Your task to perform on an android device: find which apps use the phone's location Image 0: 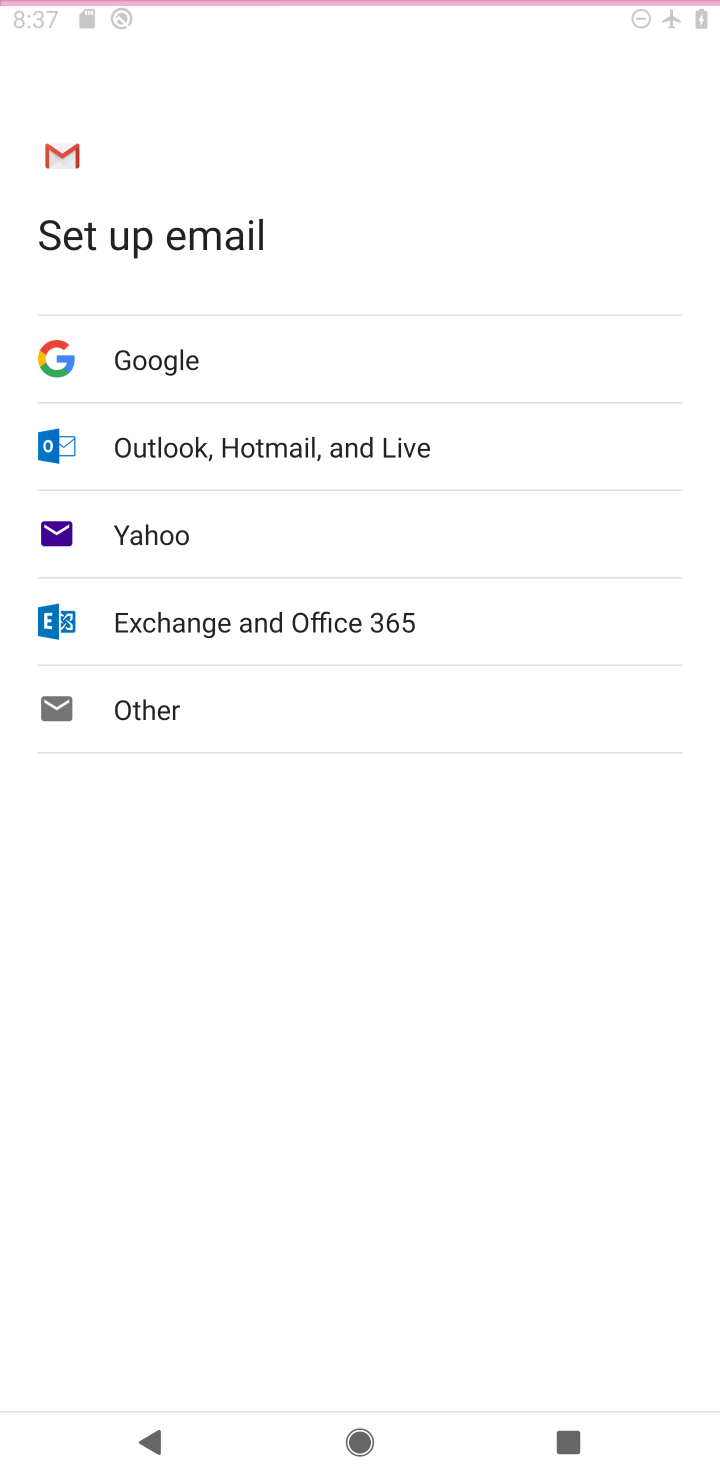
Step 0: press home button
Your task to perform on an android device: find which apps use the phone's location Image 1: 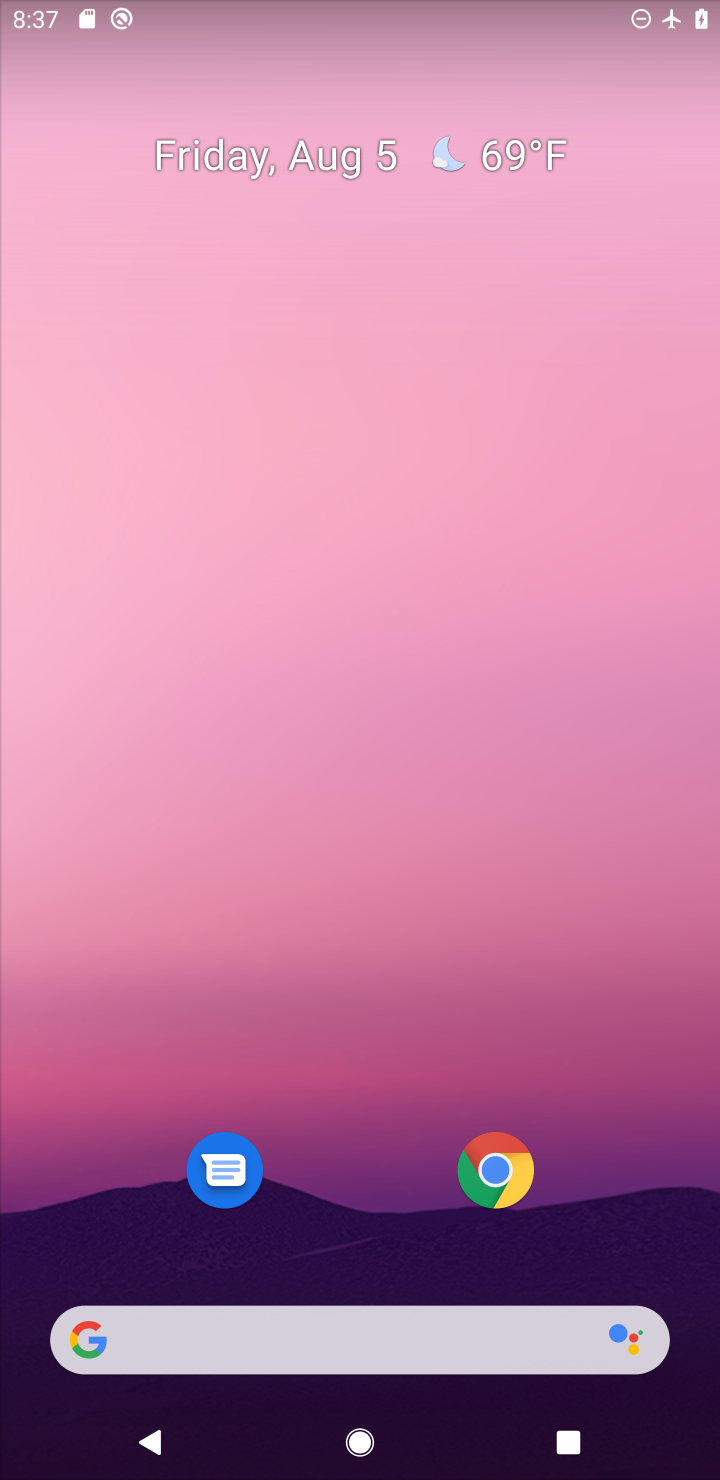
Step 1: drag from (629, 1213) to (601, 333)
Your task to perform on an android device: find which apps use the phone's location Image 2: 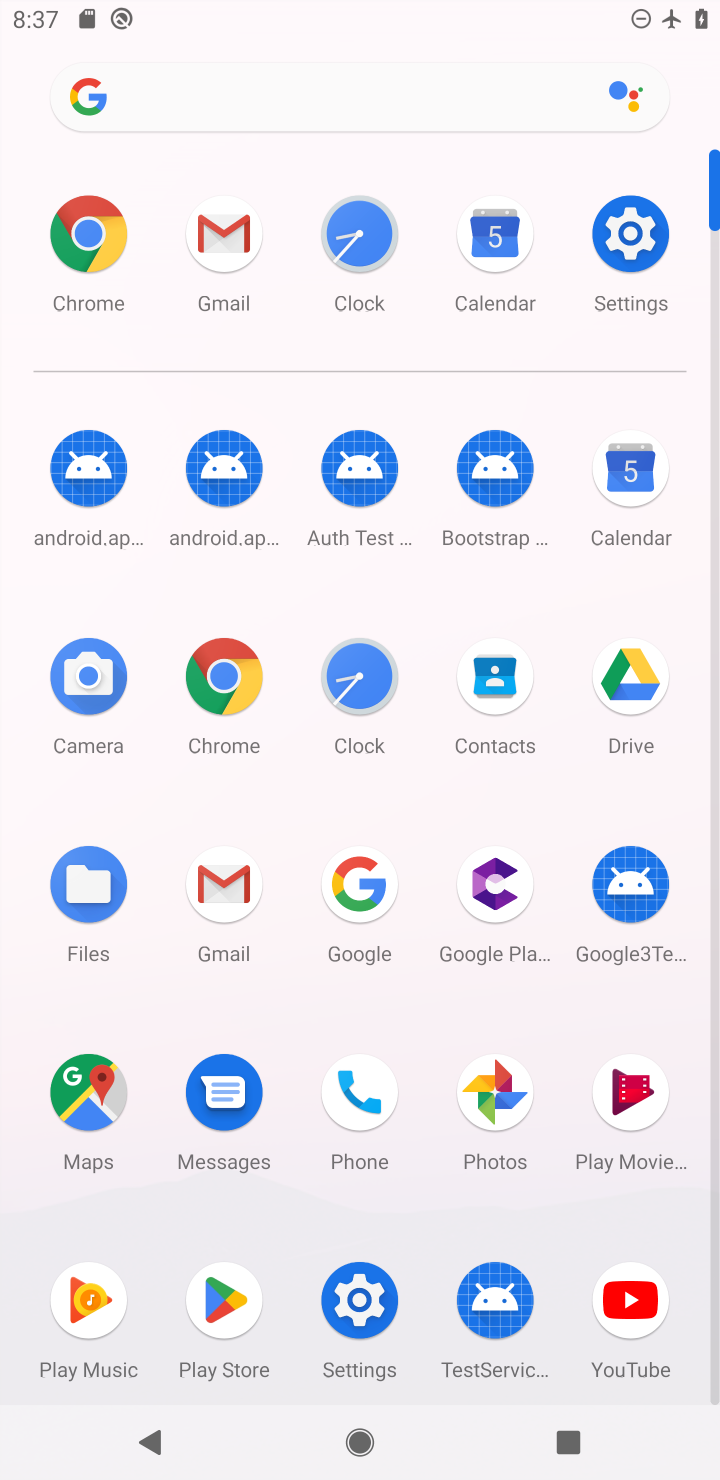
Step 2: click (356, 1293)
Your task to perform on an android device: find which apps use the phone's location Image 3: 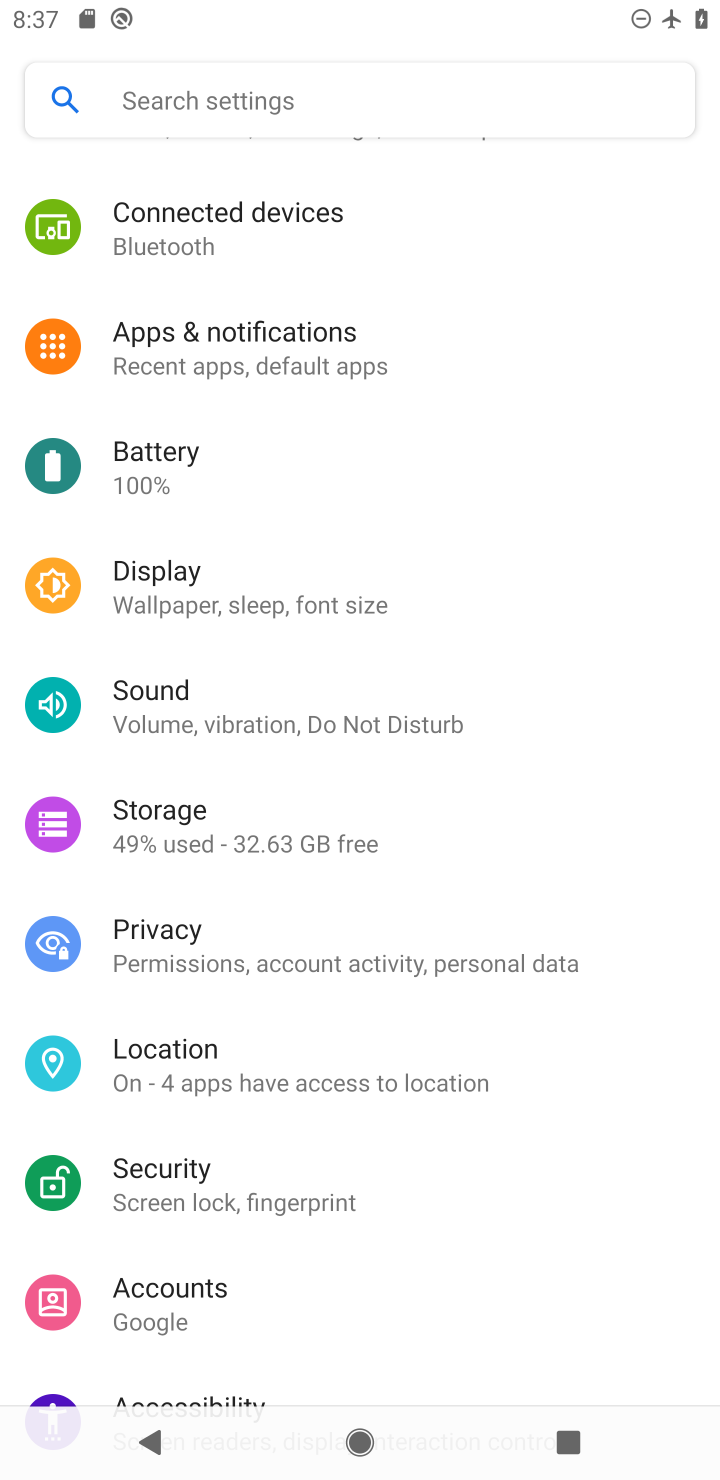
Step 3: click (185, 1075)
Your task to perform on an android device: find which apps use the phone's location Image 4: 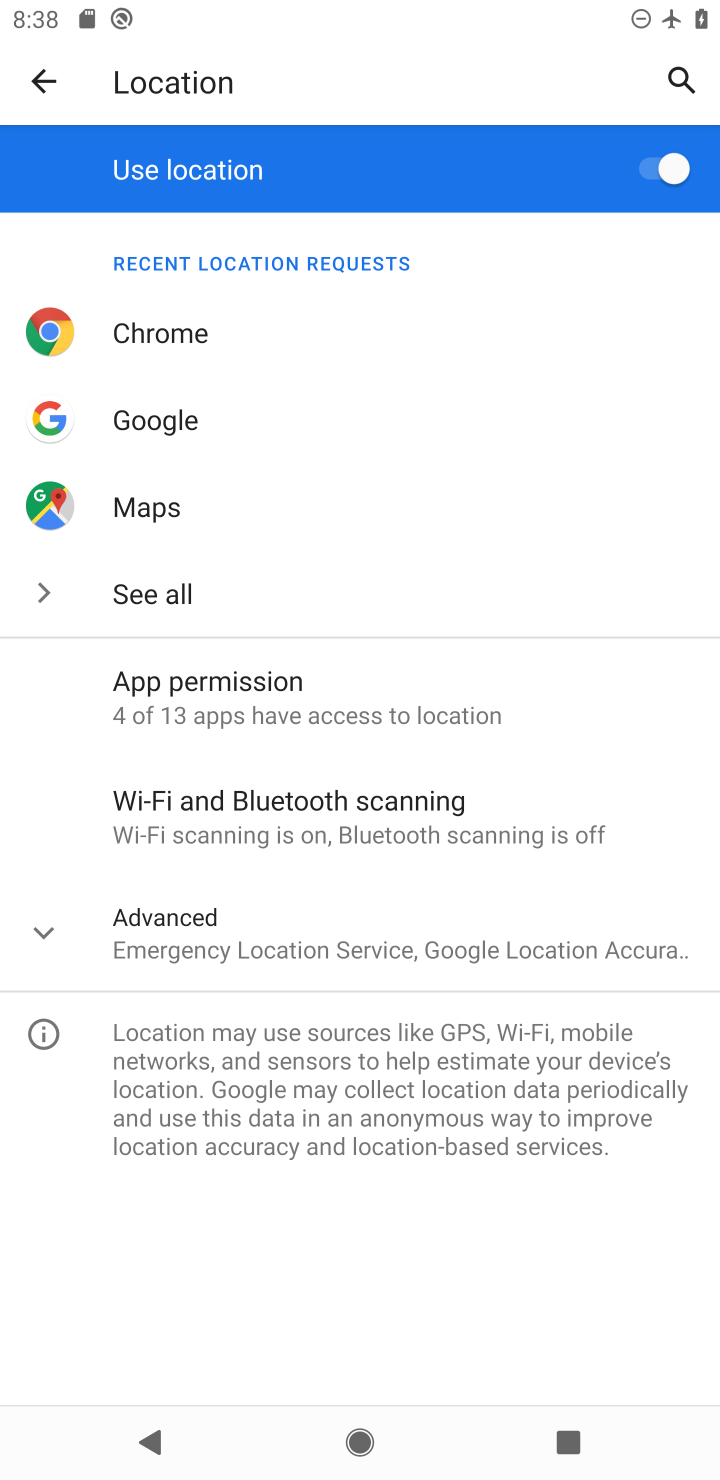
Step 4: click (198, 682)
Your task to perform on an android device: find which apps use the phone's location Image 5: 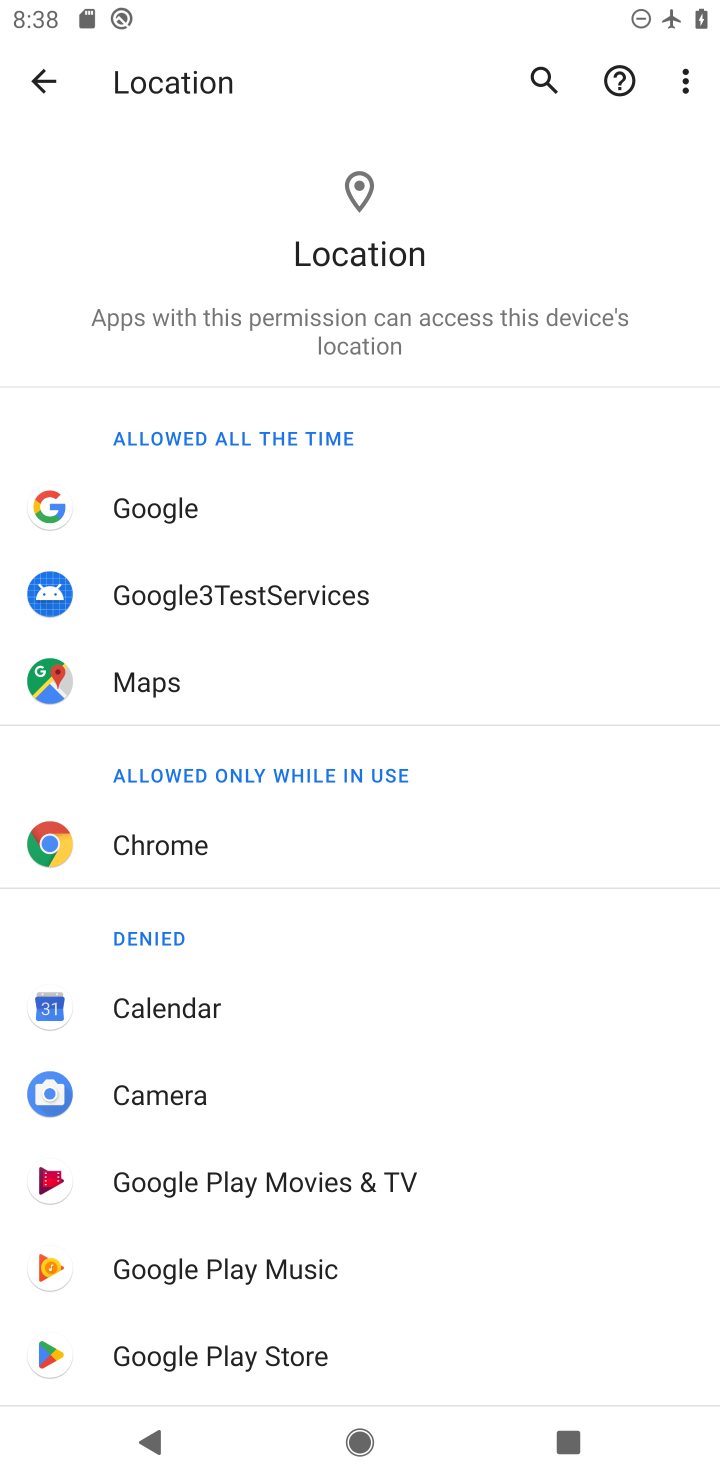
Step 5: drag from (523, 1244) to (502, 548)
Your task to perform on an android device: find which apps use the phone's location Image 6: 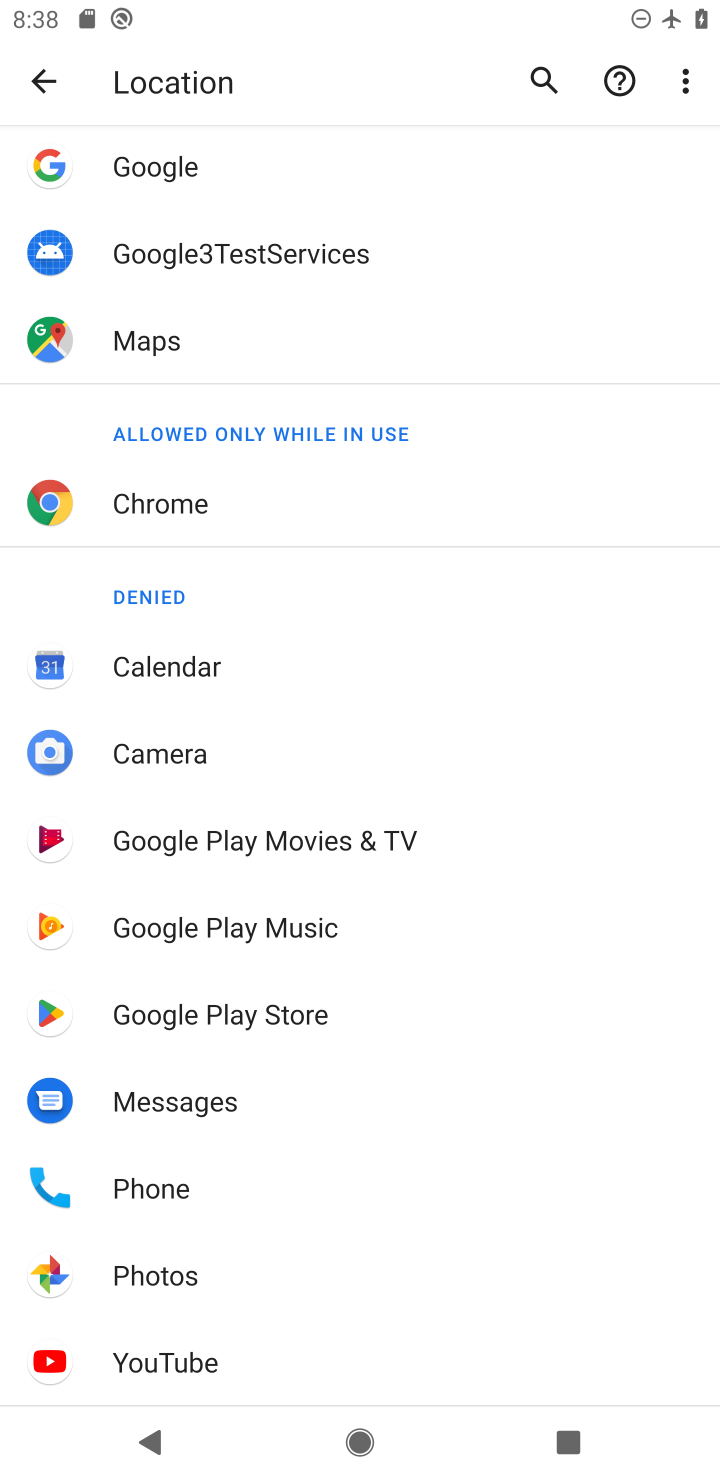
Step 6: click (552, 1052)
Your task to perform on an android device: find which apps use the phone's location Image 7: 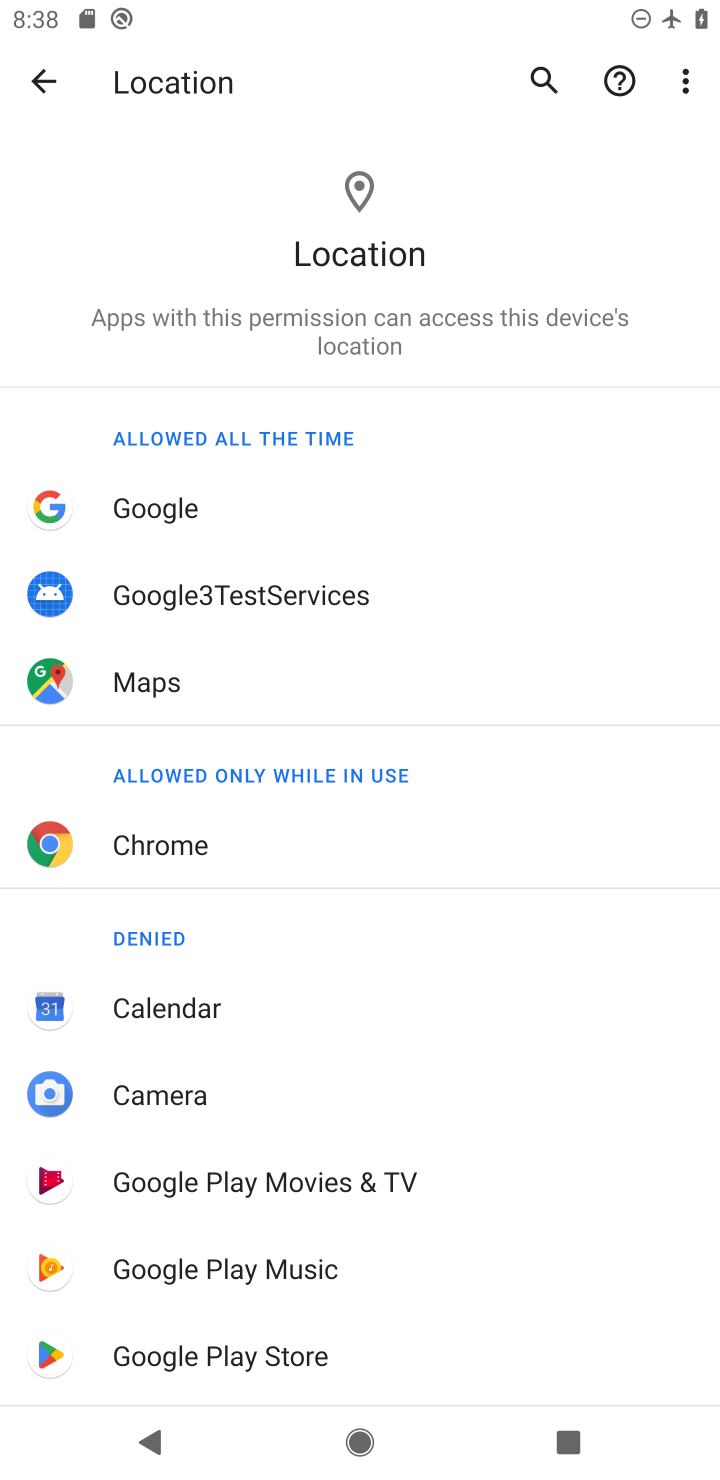
Step 7: task complete